Your task to perform on an android device: Open Chrome and go to settings Image 0: 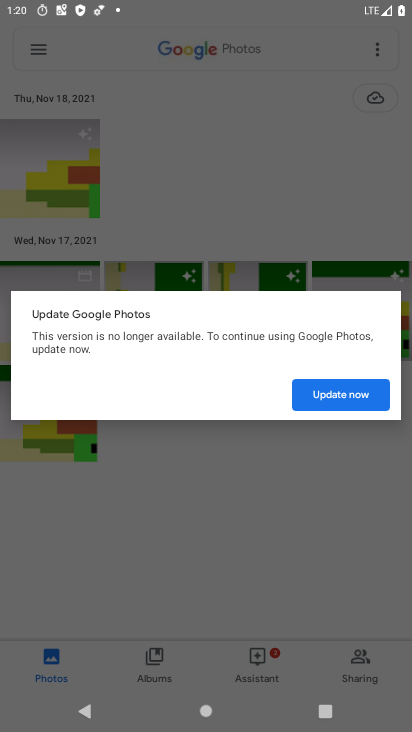
Step 0: press home button
Your task to perform on an android device: Open Chrome and go to settings Image 1: 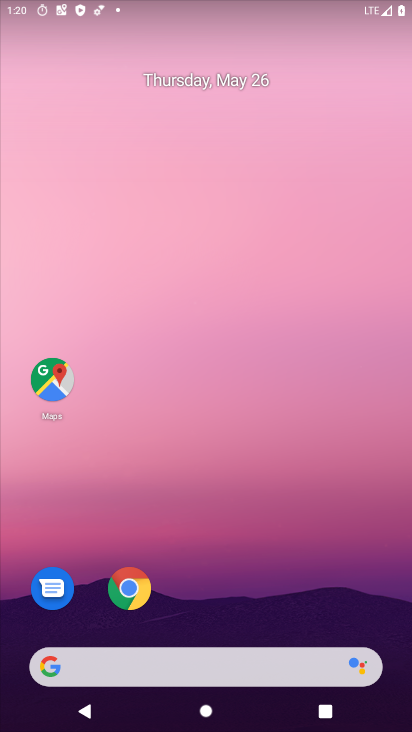
Step 1: click (118, 596)
Your task to perform on an android device: Open Chrome and go to settings Image 2: 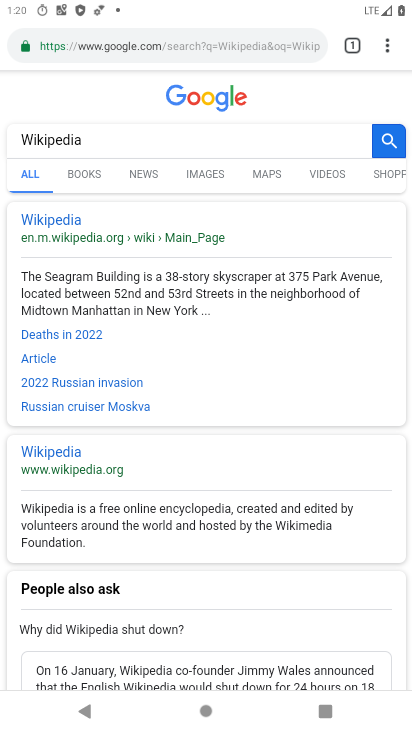
Step 2: click (384, 36)
Your task to perform on an android device: Open Chrome and go to settings Image 3: 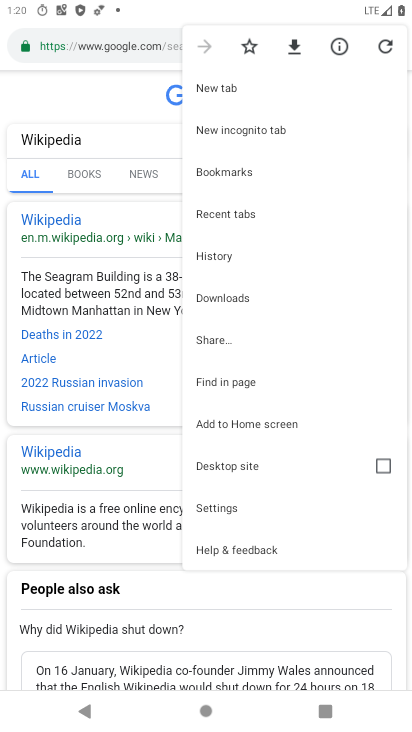
Step 3: click (205, 504)
Your task to perform on an android device: Open Chrome and go to settings Image 4: 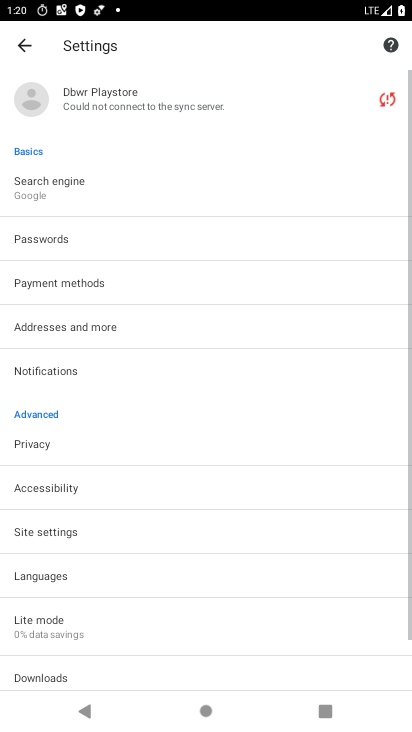
Step 4: task complete